Your task to perform on an android device: see tabs open on other devices in the chrome app Image 0: 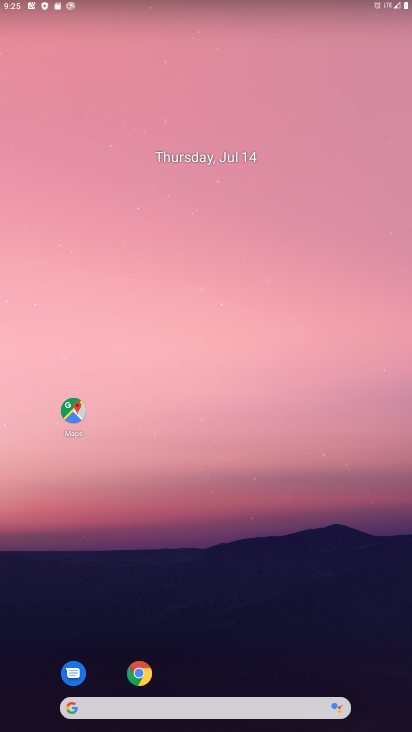
Step 0: click (141, 674)
Your task to perform on an android device: see tabs open on other devices in the chrome app Image 1: 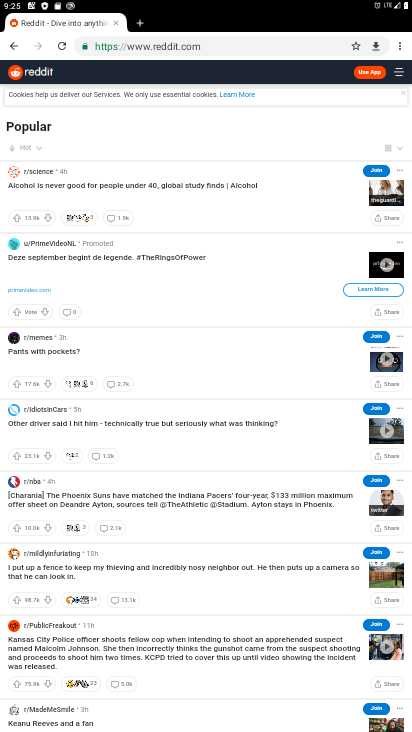
Step 1: click (400, 46)
Your task to perform on an android device: see tabs open on other devices in the chrome app Image 2: 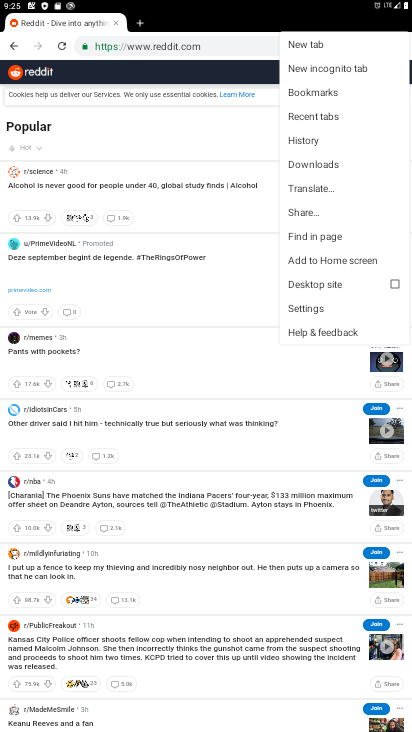
Step 2: click (330, 117)
Your task to perform on an android device: see tabs open on other devices in the chrome app Image 3: 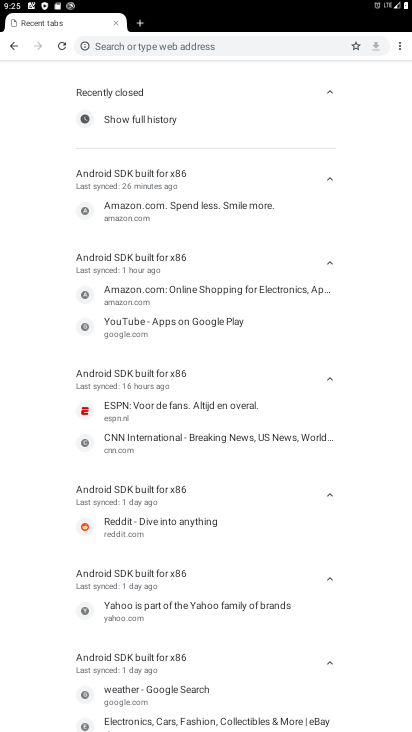
Step 3: task complete